Your task to perform on an android device: toggle improve location accuracy Image 0: 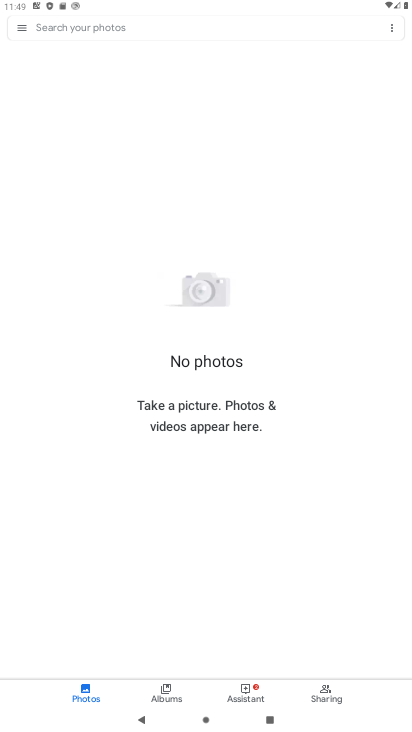
Step 0: press home button
Your task to perform on an android device: toggle improve location accuracy Image 1: 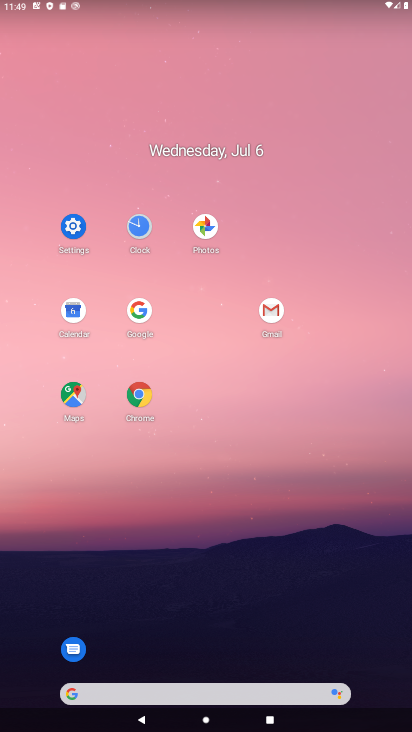
Step 1: click (73, 223)
Your task to perform on an android device: toggle improve location accuracy Image 2: 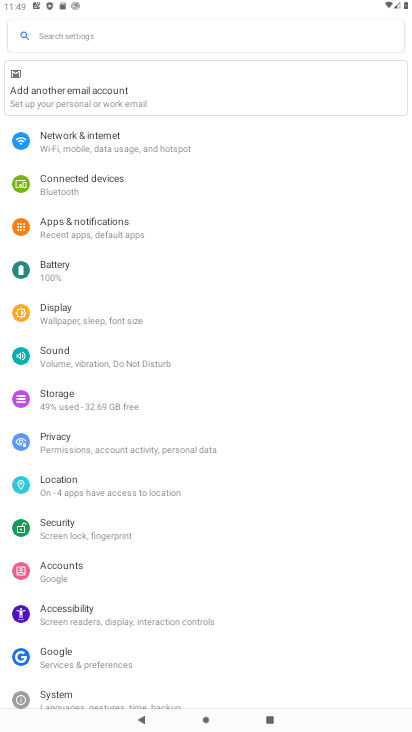
Step 2: click (182, 482)
Your task to perform on an android device: toggle improve location accuracy Image 3: 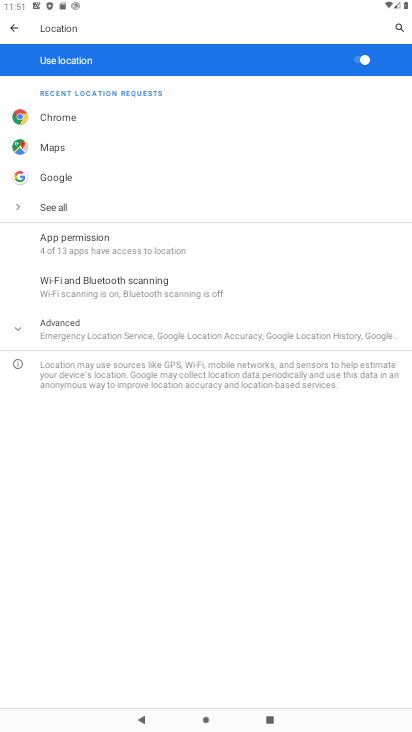
Step 3: click (358, 60)
Your task to perform on an android device: toggle improve location accuracy Image 4: 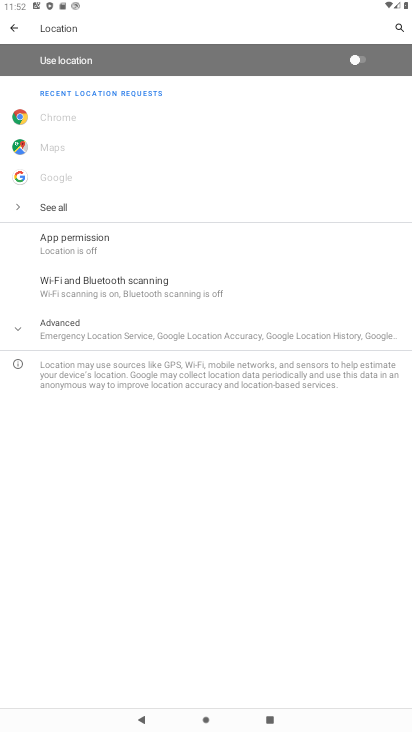
Step 4: task complete